Your task to perform on an android device: open device folders in google photos Image 0: 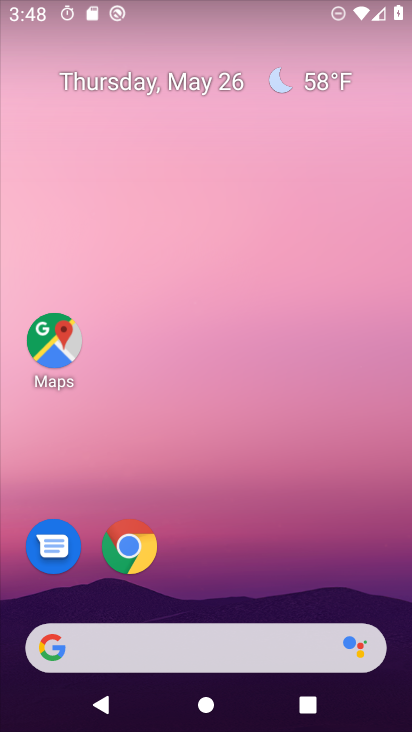
Step 0: press home button
Your task to perform on an android device: open device folders in google photos Image 1: 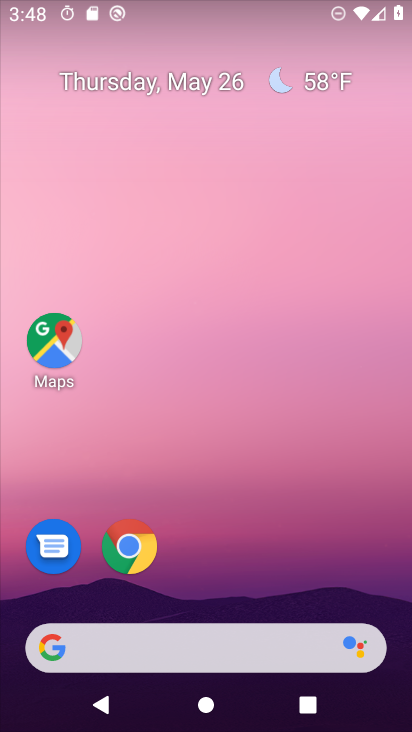
Step 1: drag from (206, 555) to (227, 10)
Your task to perform on an android device: open device folders in google photos Image 2: 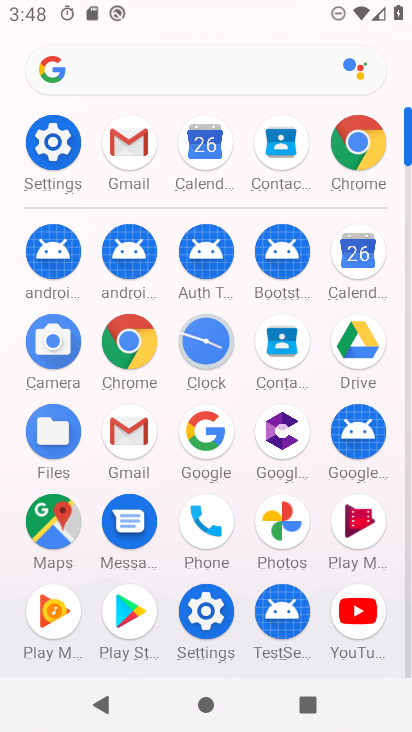
Step 2: click (277, 514)
Your task to perform on an android device: open device folders in google photos Image 3: 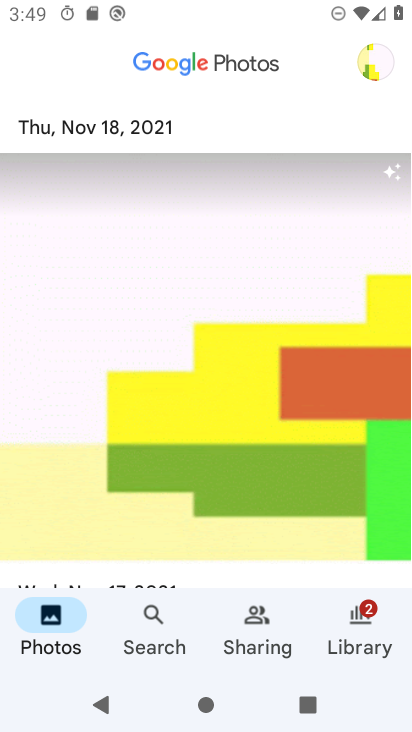
Step 3: click (147, 614)
Your task to perform on an android device: open device folders in google photos Image 4: 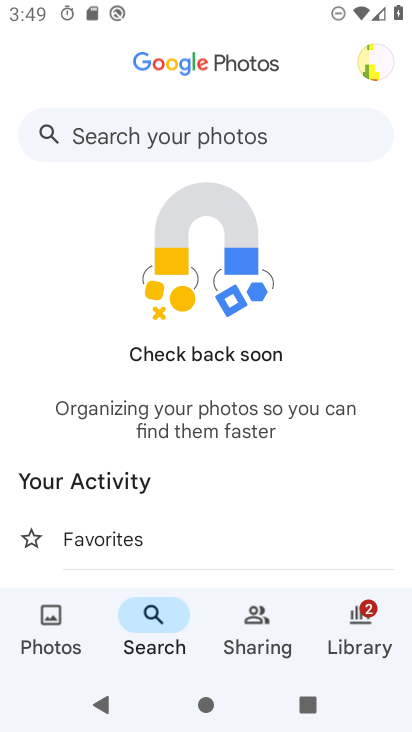
Step 4: click (126, 125)
Your task to perform on an android device: open device folders in google photos Image 5: 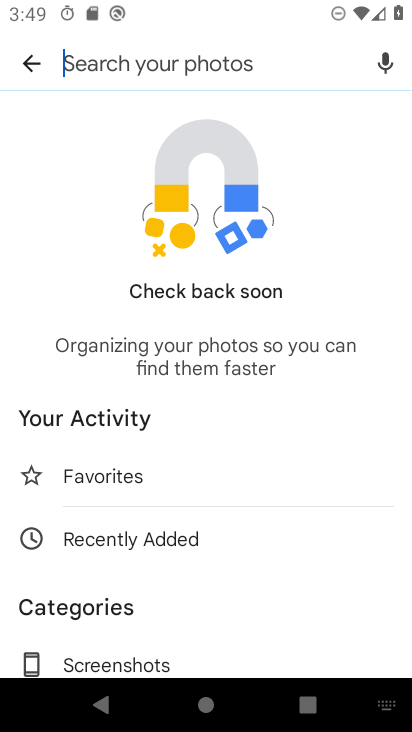
Step 5: drag from (193, 575) to (215, 74)
Your task to perform on an android device: open device folders in google photos Image 6: 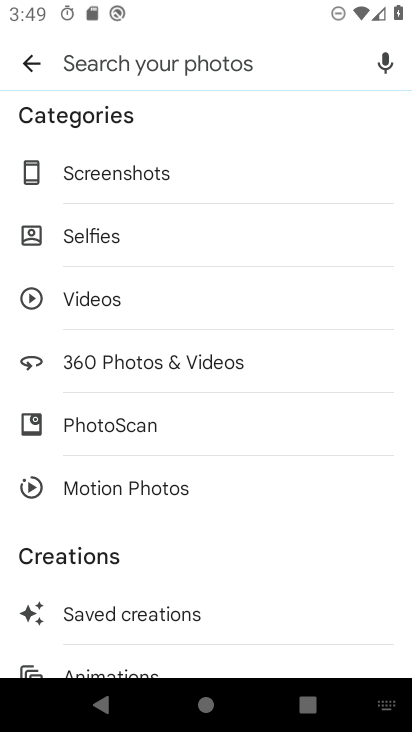
Step 6: click (31, 62)
Your task to perform on an android device: open device folders in google photos Image 7: 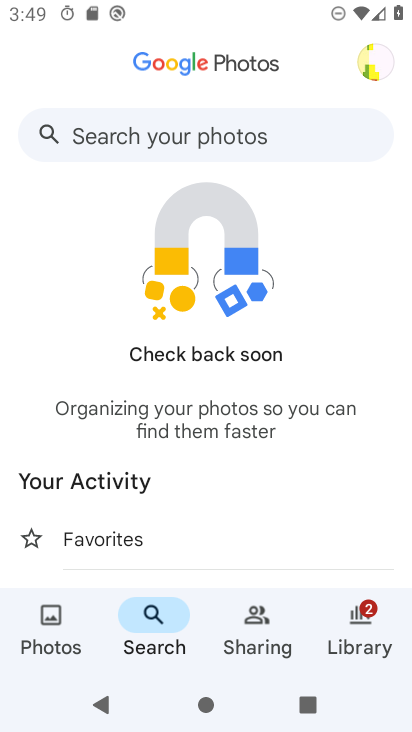
Step 7: drag from (190, 539) to (220, 96)
Your task to perform on an android device: open device folders in google photos Image 8: 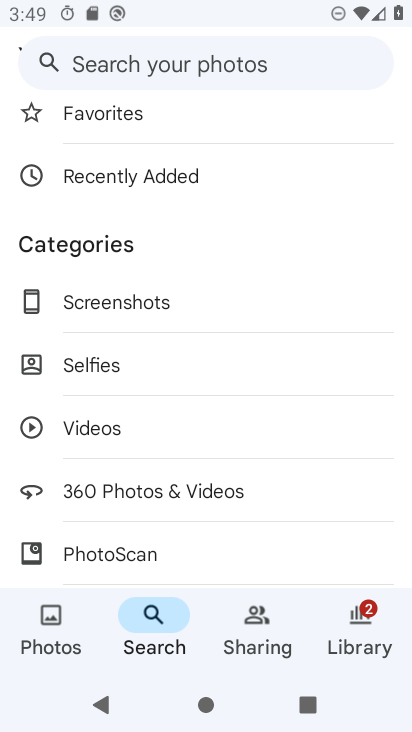
Step 8: drag from (184, 522) to (220, 55)
Your task to perform on an android device: open device folders in google photos Image 9: 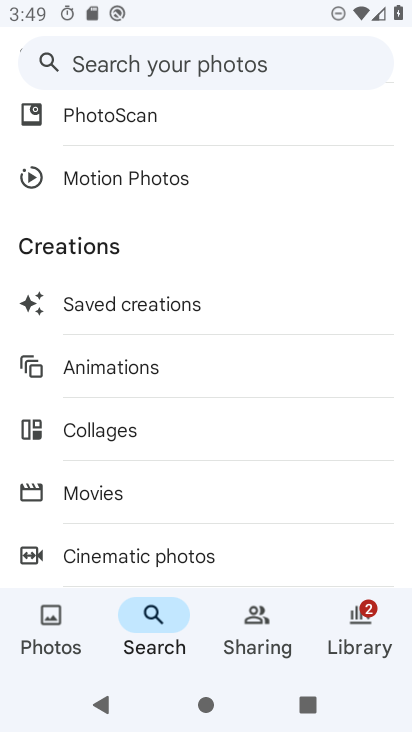
Step 9: drag from (165, 182) to (235, 628)
Your task to perform on an android device: open device folders in google photos Image 10: 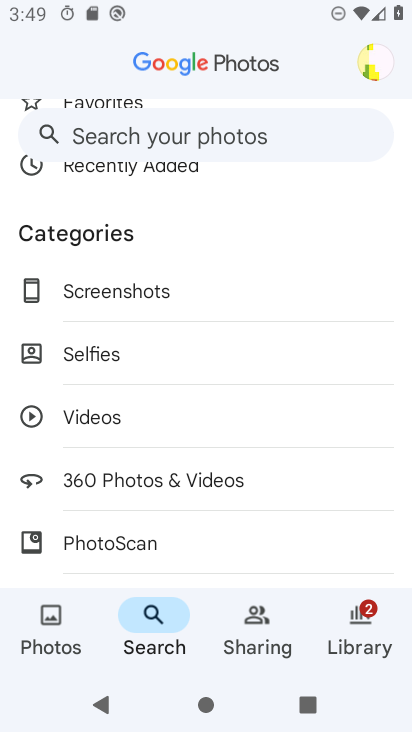
Step 10: drag from (153, 222) to (201, 572)
Your task to perform on an android device: open device folders in google photos Image 11: 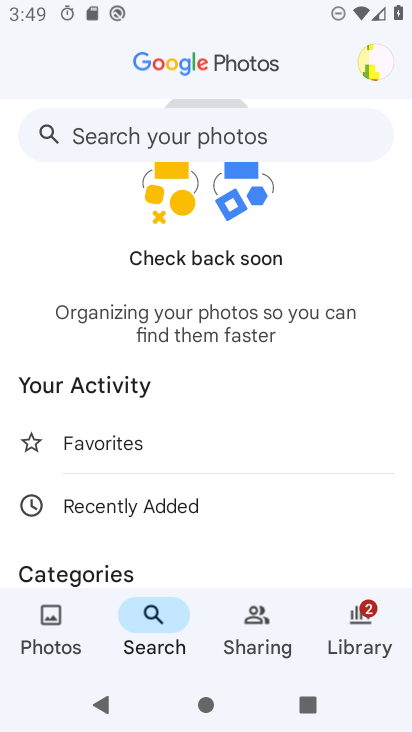
Step 11: drag from (217, 514) to (249, 168)
Your task to perform on an android device: open device folders in google photos Image 12: 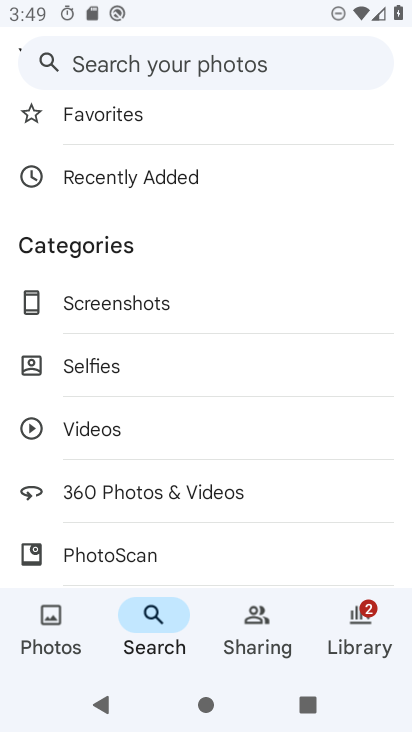
Step 12: drag from (225, 537) to (251, 105)
Your task to perform on an android device: open device folders in google photos Image 13: 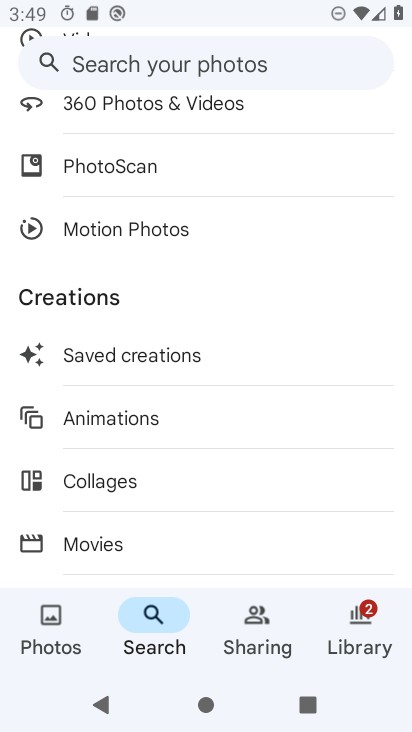
Step 13: drag from (173, 500) to (202, 59)
Your task to perform on an android device: open device folders in google photos Image 14: 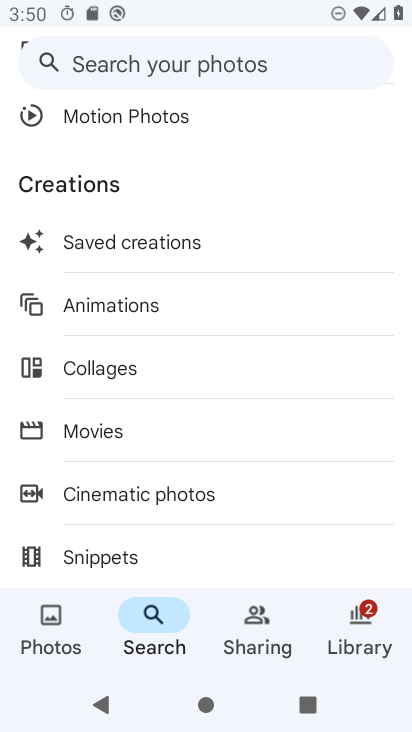
Step 14: click (114, 54)
Your task to perform on an android device: open device folders in google photos Image 15: 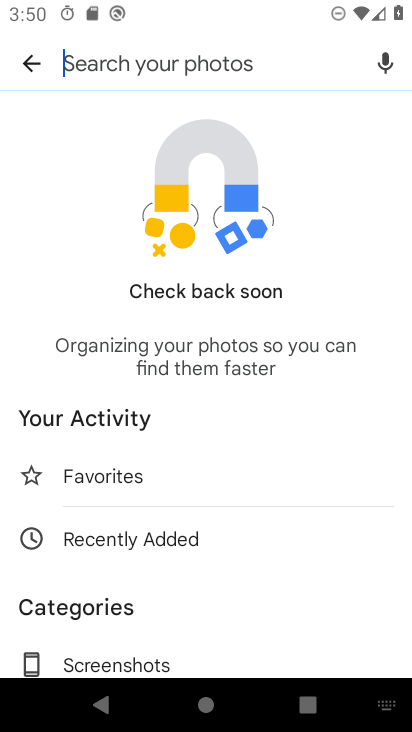
Step 15: type "device"
Your task to perform on an android device: open device folders in google photos Image 16: 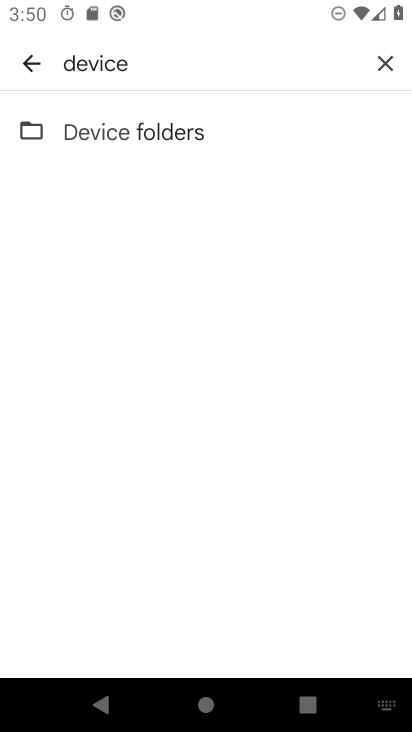
Step 16: click (220, 128)
Your task to perform on an android device: open device folders in google photos Image 17: 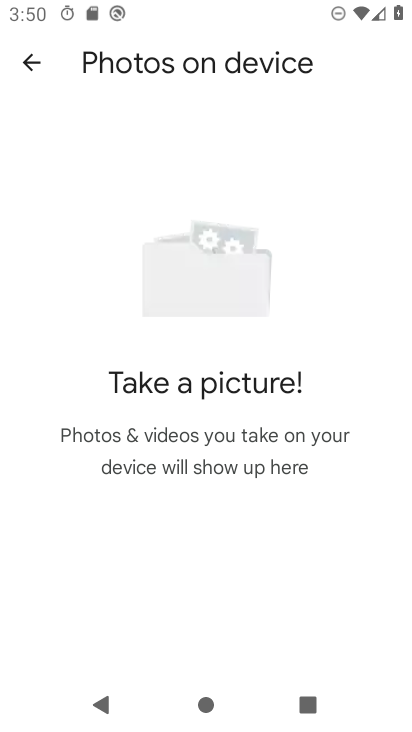
Step 17: task complete